Your task to perform on an android device: find snoozed emails in the gmail app Image 0: 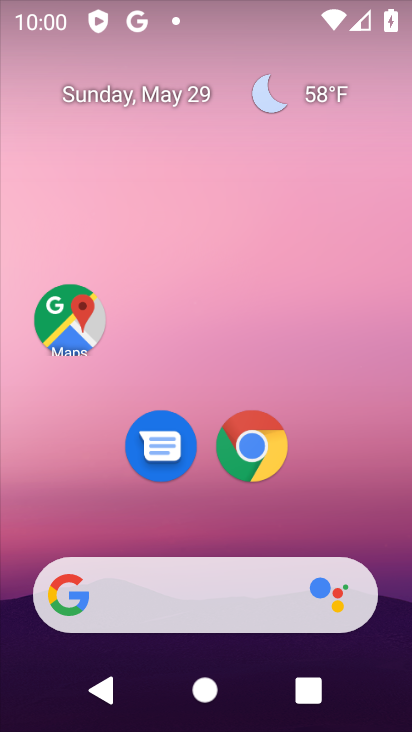
Step 0: drag from (338, 468) to (243, 0)
Your task to perform on an android device: find snoozed emails in the gmail app Image 1: 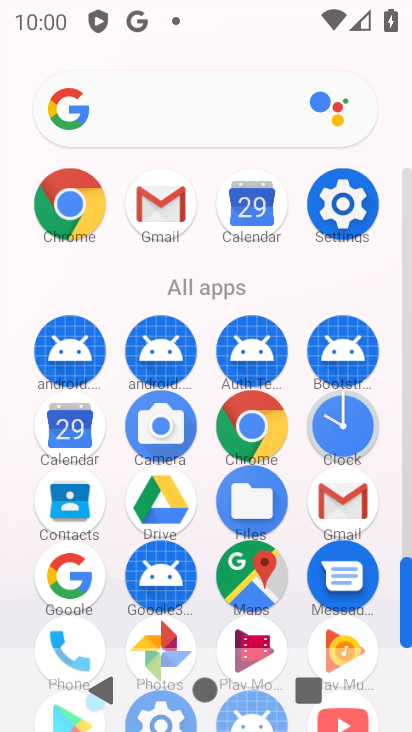
Step 1: drag from (17, 544) to (34, 227)
Your task to perform on an android device: find snoozed emails in the gmail app Image 2: 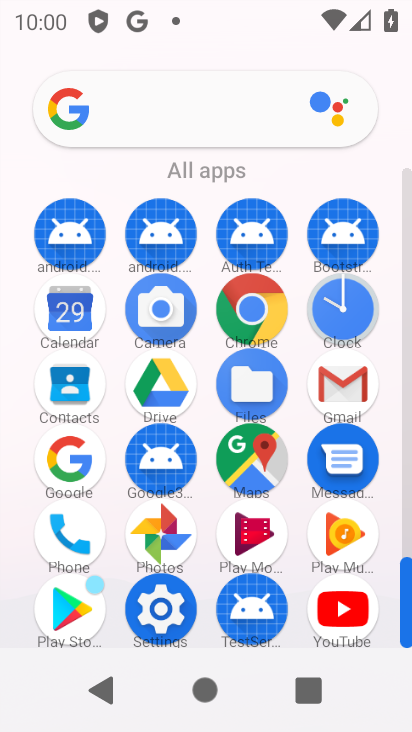
Step 2: drag from (9, 620) to (10, 184)
Your task to perform on an android device: find snoozed emails in the gmail app Image 3: 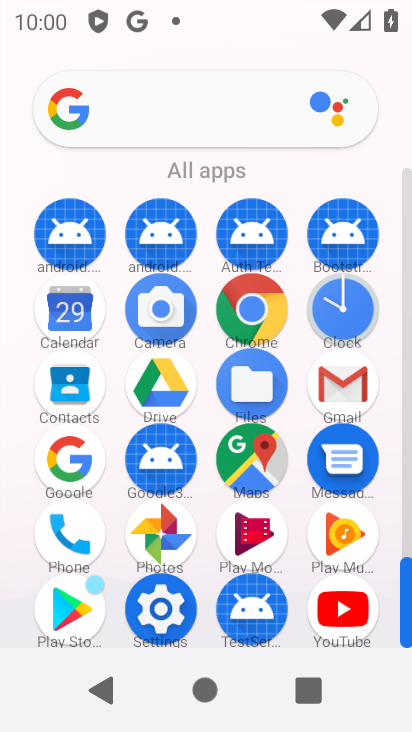
Step 3: click (331, 383)
Your task to perform on an android device: find snoozed emails in the gmail app Image 4: 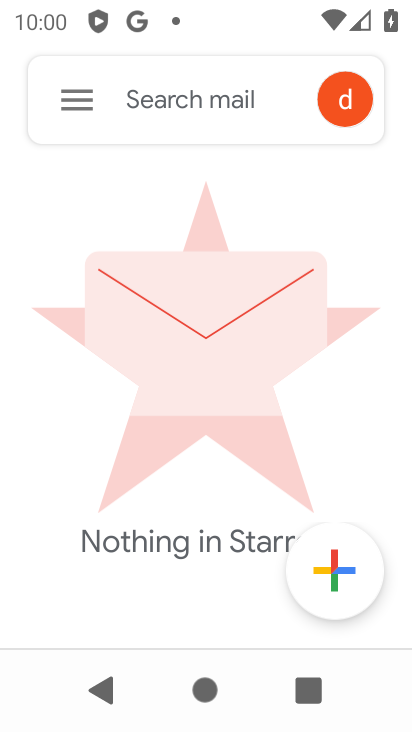
Step 4: click (64, 68)
Your task to perform on an android device: find snoozed emails in the gmail app Image 5: 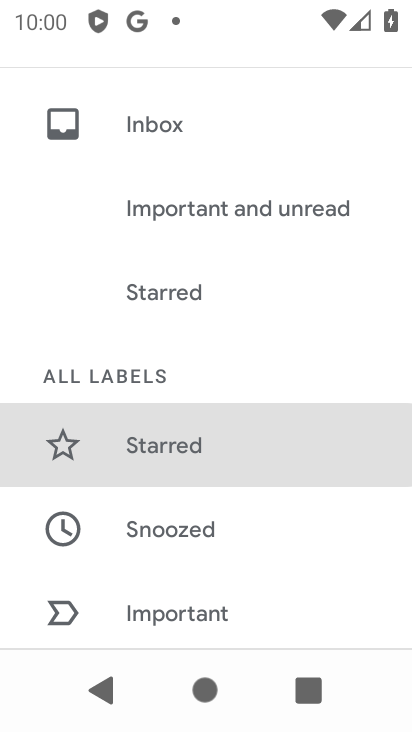
Step 5: drag from (267, 607) to (273, 212)
Your task to perform on an android device: find snoozed emails in the gmail app Image 6: 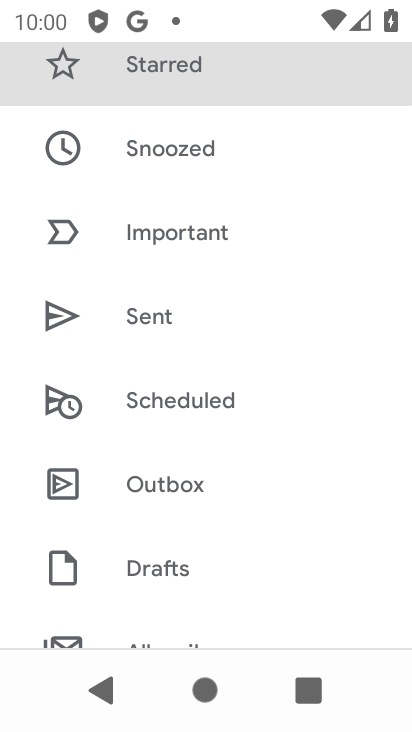
Step 6: click (179, 148)
Your task to perform on an android device: find snoozed emails in the gmail app Image 7: 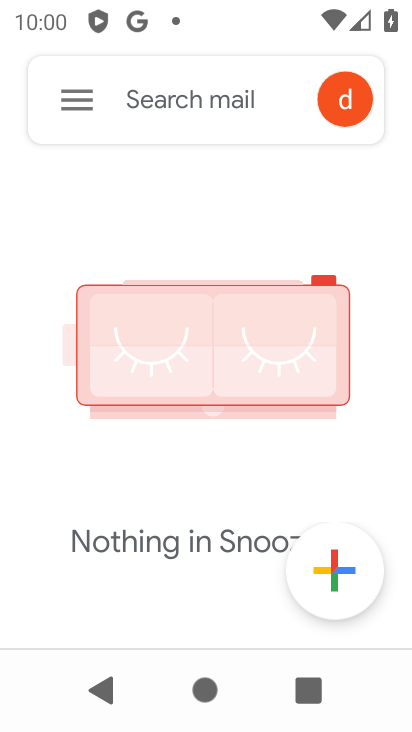
Step 7: task complete